Your task to perform on an android device: turn pop-ups off in chrome Image 0: 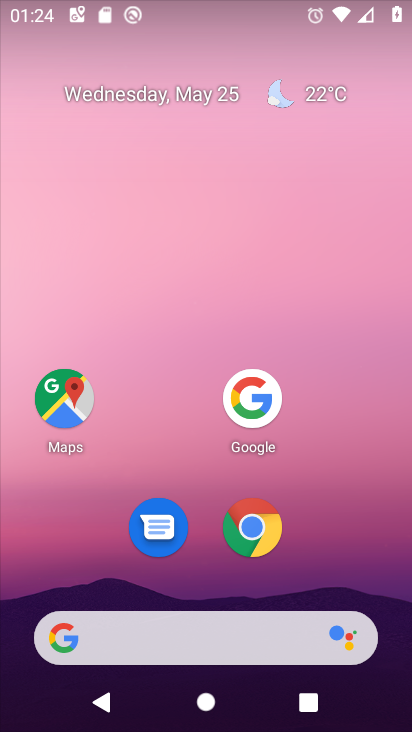
Step 0: press home button
Your task to perform on an android device: turn pop-ups off in chrome Image 1: 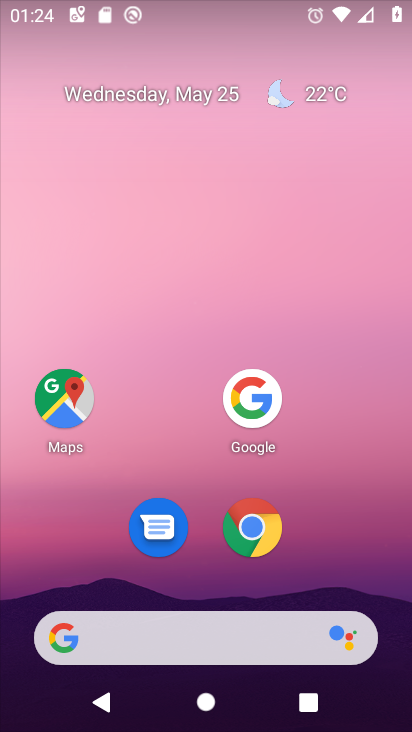
Step 1: click (243, 538)
Your task to perform on an android device: turn pop-ups off in chrome Image 2: 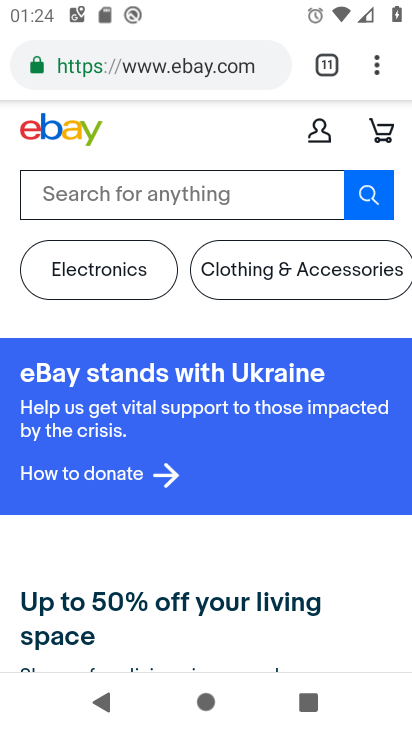
Step 2: drag from (375, 63) to (255, 562)
Your task to perform on an android device: turn pop-ups off in chrome Image 3: 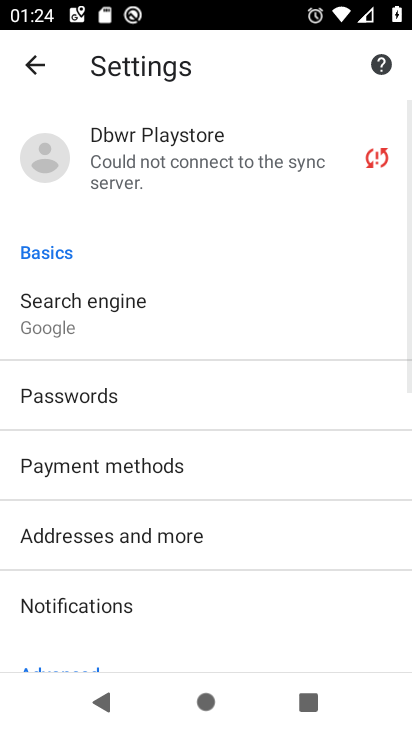
Step 3: drag from (209, 616) to (326, 211)
Your task to perform on an android device: turn pop-ups off in chrome Image 4: 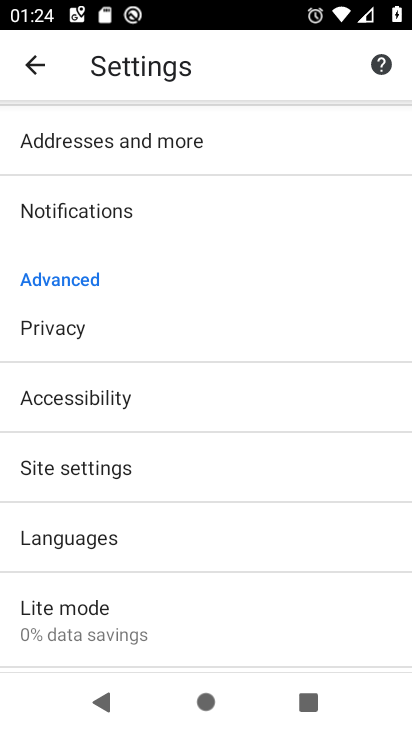
Step 4: click (121, 461)
Your task to perform on an android device: turn pop-ups off in chrome Image 5: 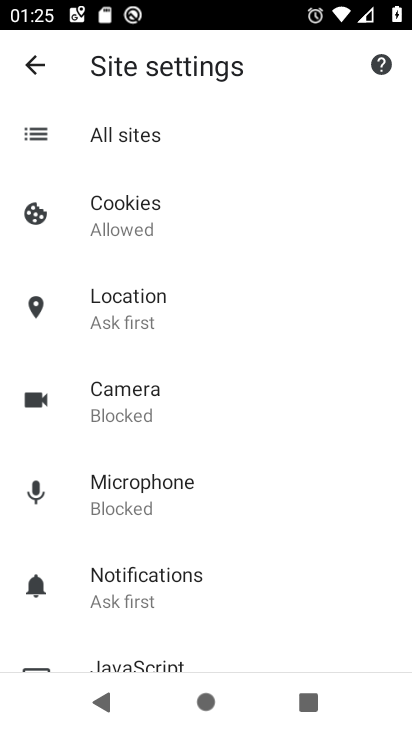
Step 5: drag from (235, 587) to (267, 219)
Your task to perform on an android device: turn pop-ups off in chrome Image 6: 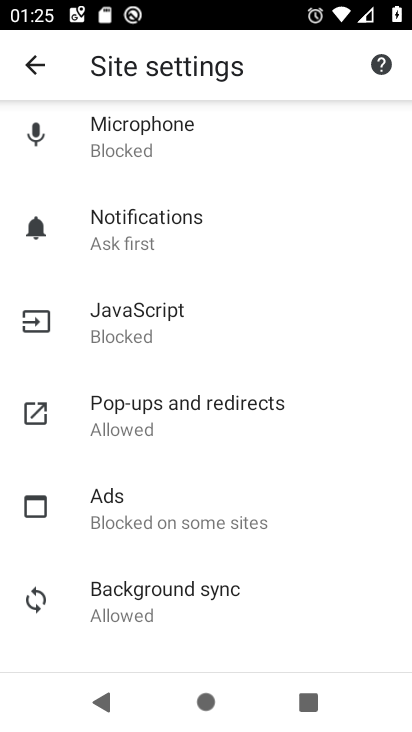
Step 6: click (193, 396)
Your task to perform on an android device: turn pop-ups off in chrome Image 7: 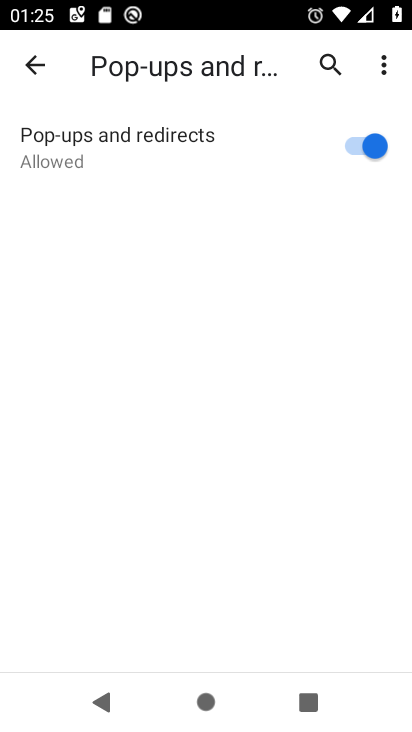
Step 7: click (353, 148)
Your task to perform on an android device: turn pop-ups off in chrome Image 8: 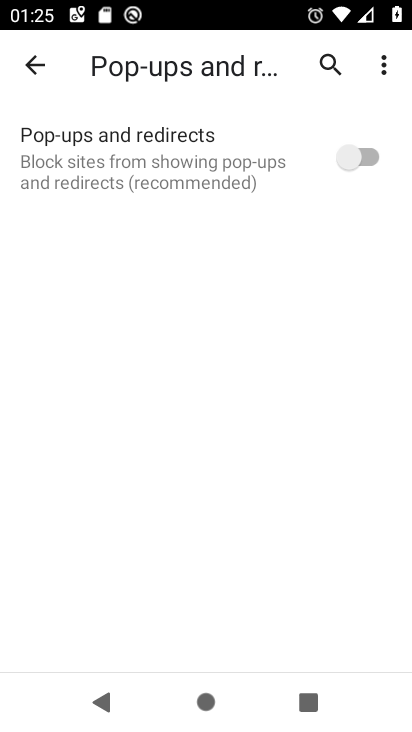
Step 8: task complete